Your task to perform on an android device: see creations saved in the google photos Image 0: 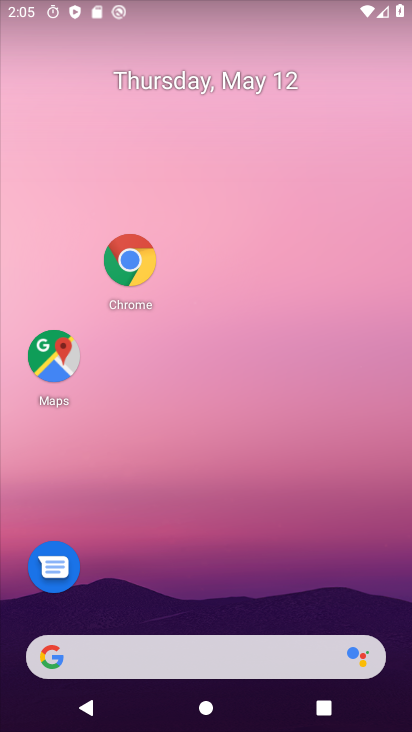
Step 0: drag from (224, 639) to (211, 237)
Your task to perform on an android device: see creations saved in the google photos Image 1: 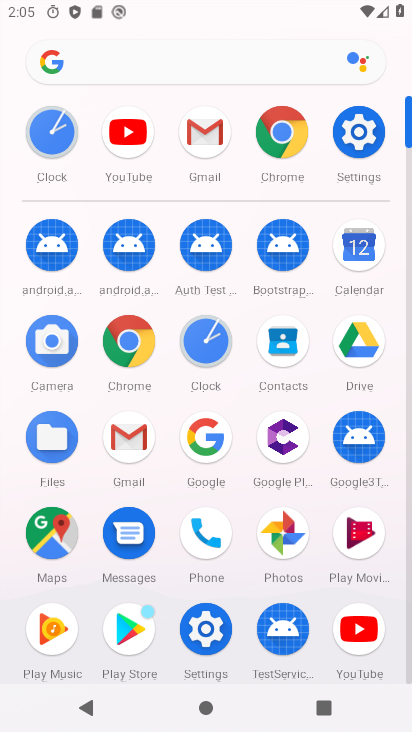
Step 1: click (275, 538)
Your task to perform on an android device: see creations saved in the google photos Image 2: 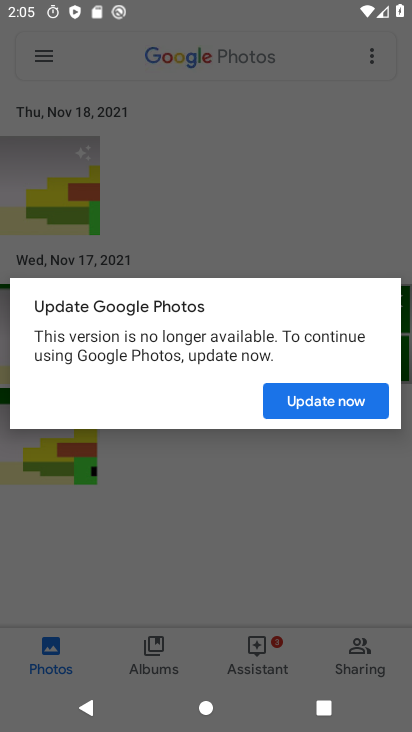
Step 2: click (297, 407)
Your task to perform on an android device: see creations saved in the google photos Image 3: 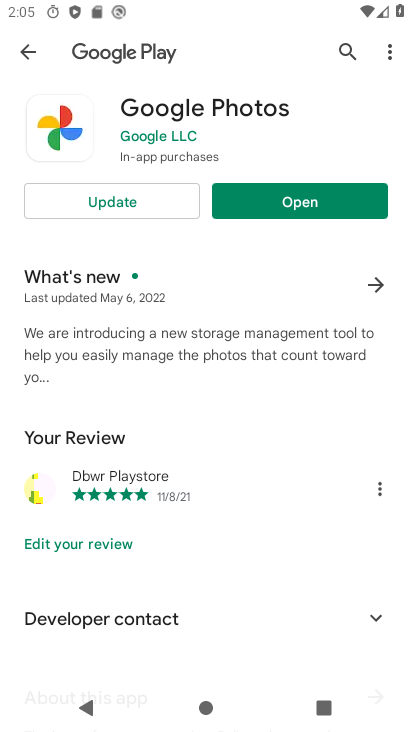
Step 3: click (156, 205)
Your task to perform on an android device: see creations saved in the google photos Image 4: 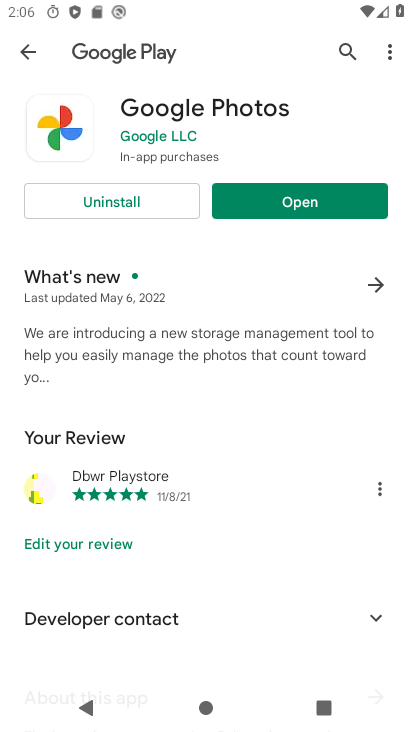
Step 4: click (262, 209)
Your task to perform on an android device: see creations saved in the google photos Image 5: 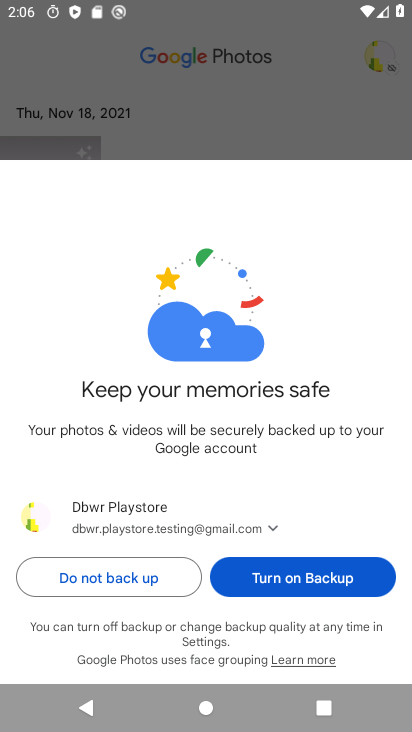
Step 5: click (244, 577)
Your task to perform on an android device: see creations saved in the google photos Image 6: 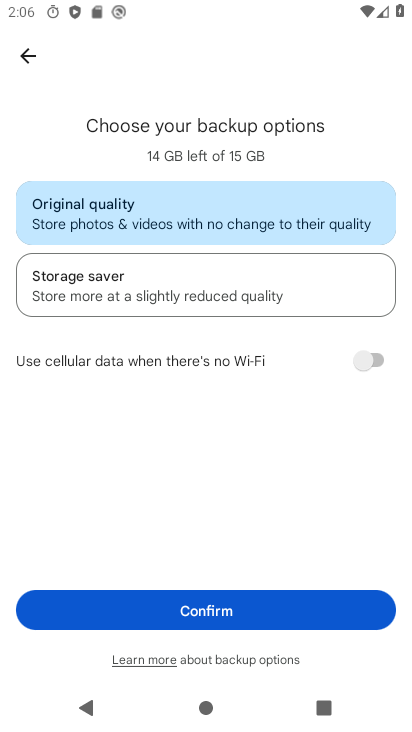
Step 6: click (210, 613)
Your task to perform on an android device: see creations saved in the google photos Image 7: 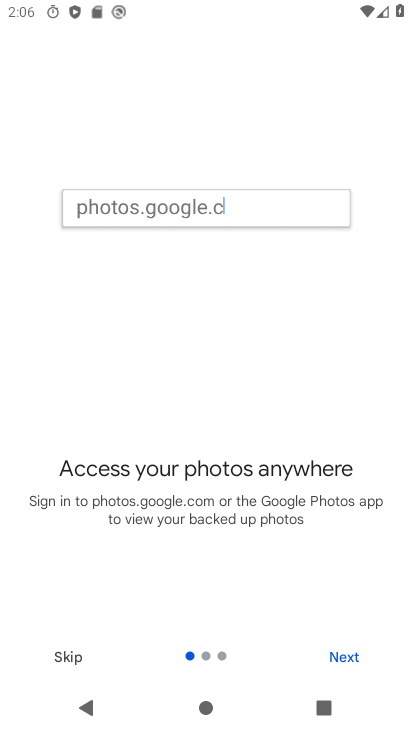
Step 7: click (356, 654)
Your task to perform on an android device: see creations saved in the google photos Image 8: 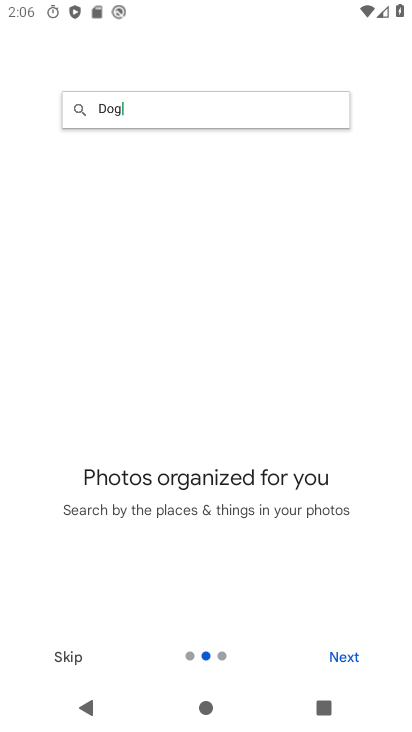
Step 8: click (356, 654)
Your task to perform on an android device: see creations saved in the google photos Image 9: 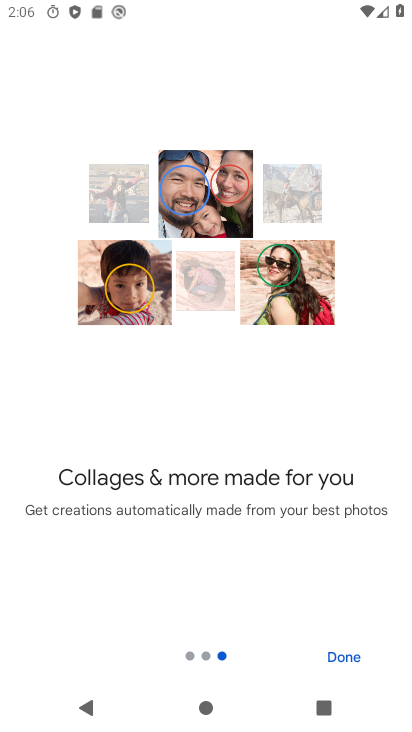
Step 9: click (347, 651)
Your task to perform on an android device: see creations saved in the google photos Image 10: 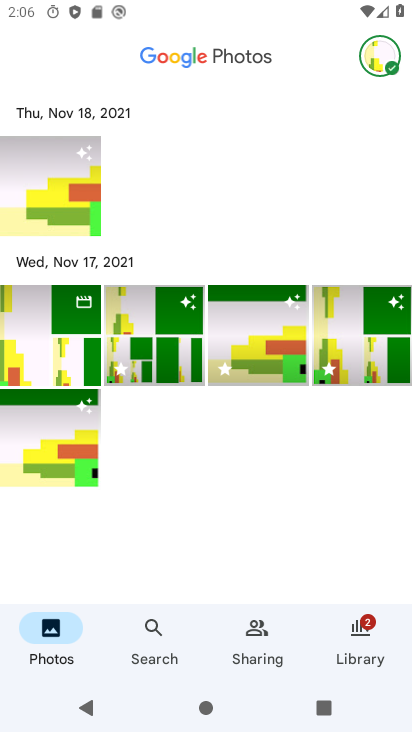
Step 10: click (342, 627)
Your task to perform on an android device: see creations saved in the google photos Image 11: 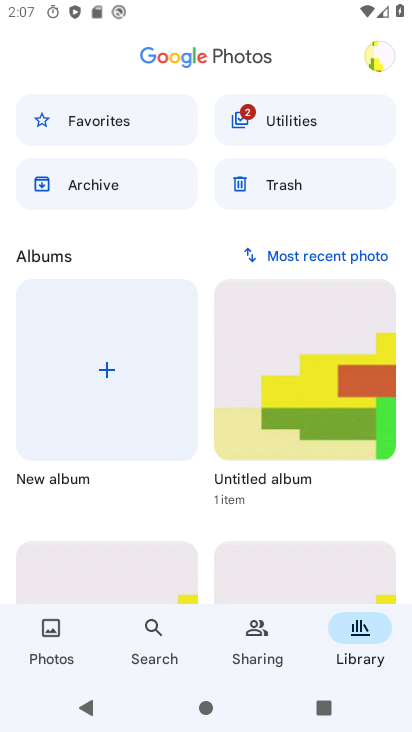
Step 11: task complete